Your task to perform on an android device: Go to wifi settings Image 0: 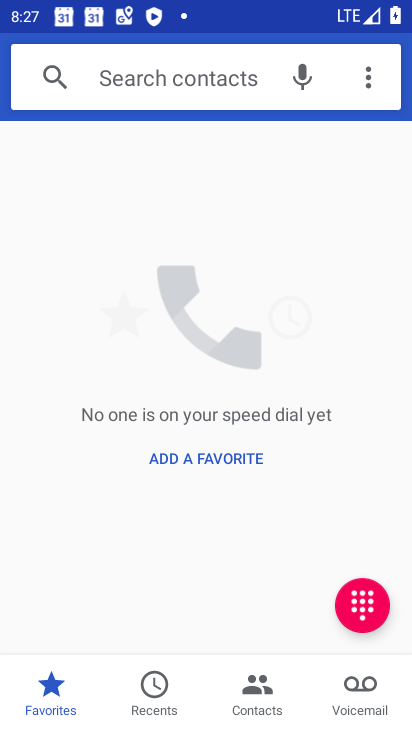
Step 0: click (295, 483)
Your task to perform on an android device: Go to wifi settings Image 1: 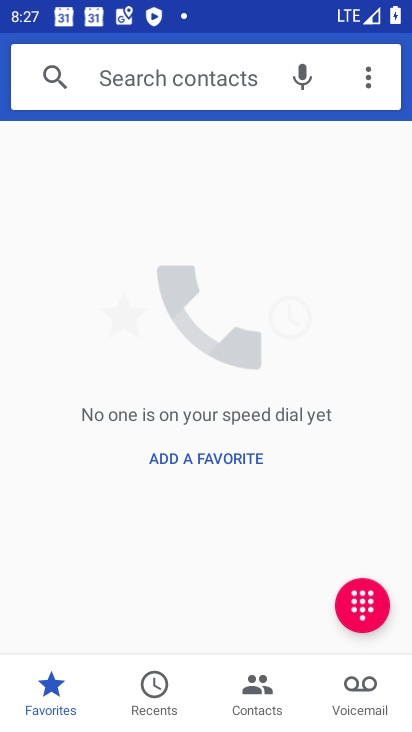
Step 1: press home button
Your task to perform on an android device: Go to wifi settings Image 2: 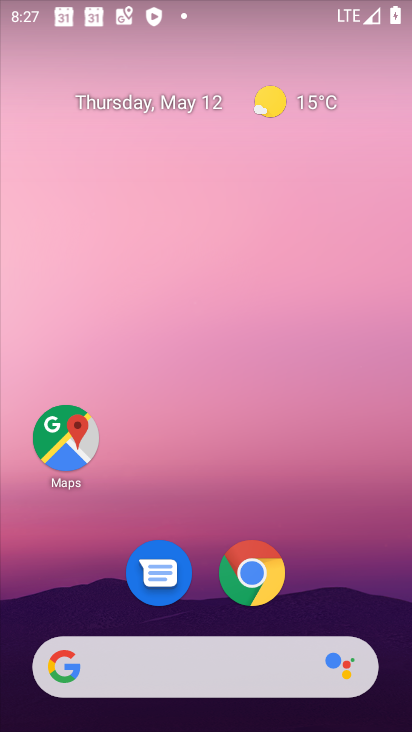
Step 2: drag from (310, 525) to (171, 38)
Your task to perform on an android device: Go to wifi settings Image 3: 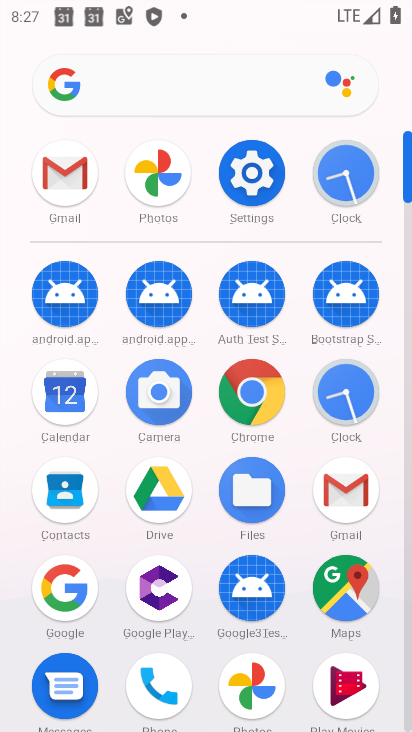
Step 3: click (232, 179)
Your task to perform on an android device: Go to wifi settings Image 4: 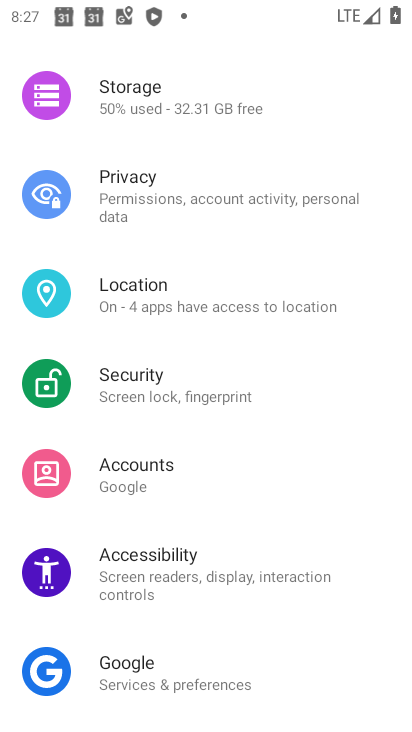
Step 4: drag from (216, 240) to (394, 727)
Your task to perform on an android device: Go to wifi settings Image 5: 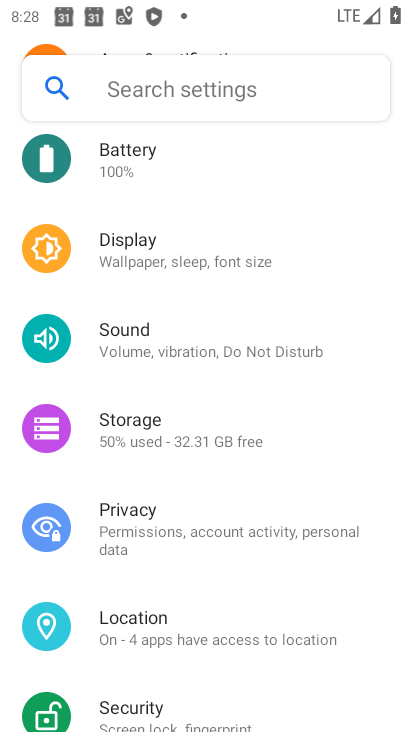
Step 5: drag from (208, 215) to (174, 731)
Your task to perform on an android device: Go to wifi settings Image 6: 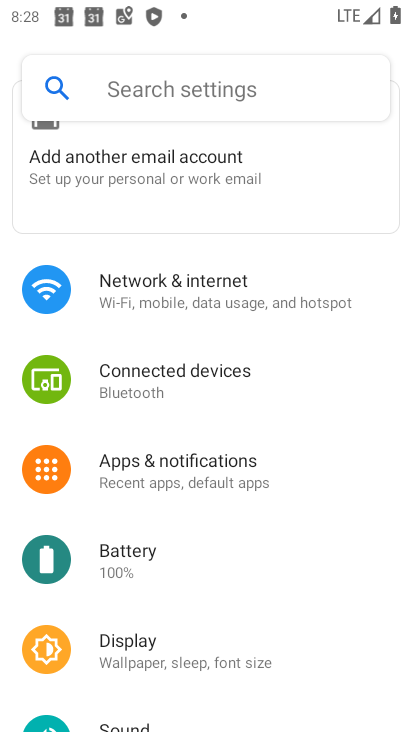
Step 6: click (195, 283)
Your task to perform on an android device: Go to wifi settings Image 7: 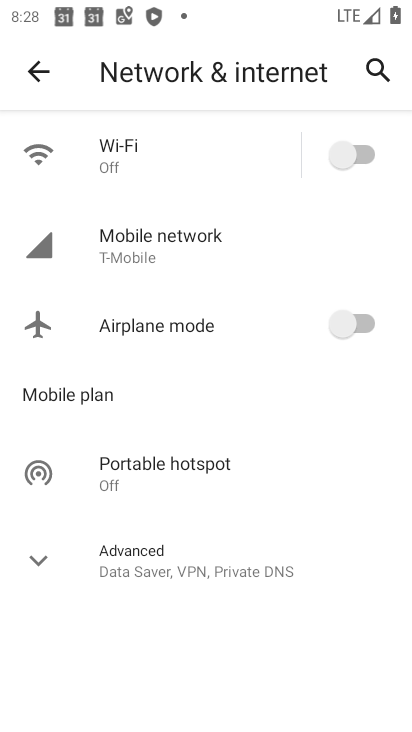
Step 7: click (107, 137)
Your task to perform on an android device: Go to wifi settings Image 8: 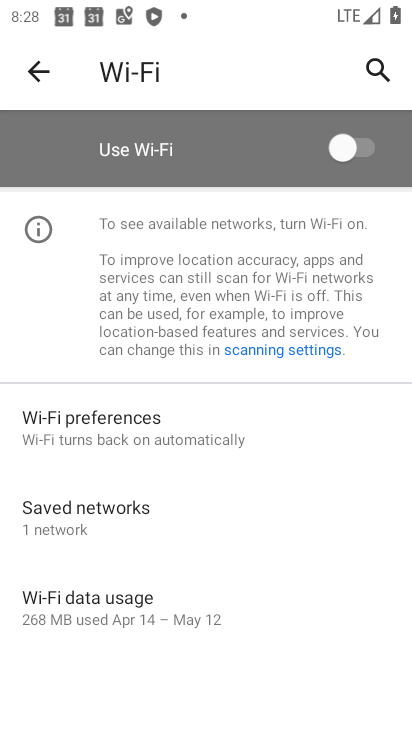
Step 8: task complete